Your task to perform on an android device: Go to privacy settings Image 0: 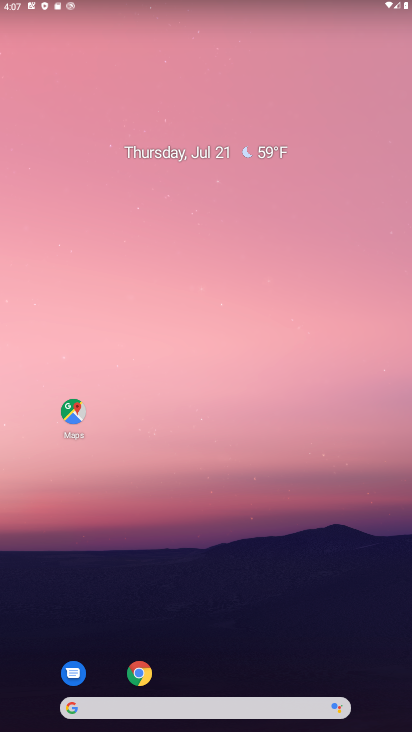
Step 0: drag from (379, 667) to (314, 194)
Your task to perform on an android device: Go to privacy settings Image 1: 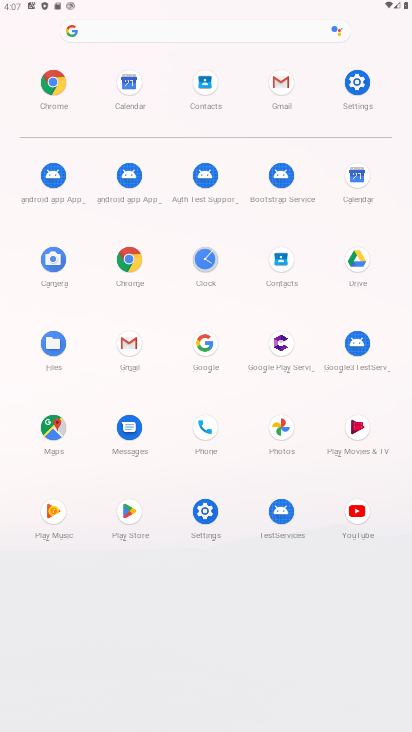
Step 1: click (205, 513)
Your task to perform on an android device: Go to privacy settings Image 2: 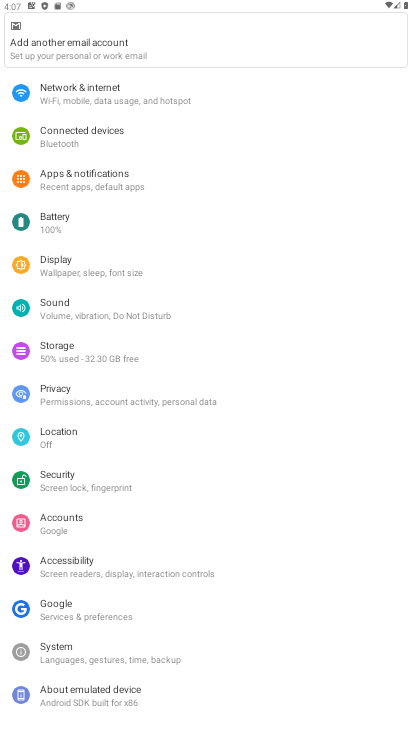
Step 2: click (67, 391)
Your task to perform on an android device: Go to privacy settings Image 3: 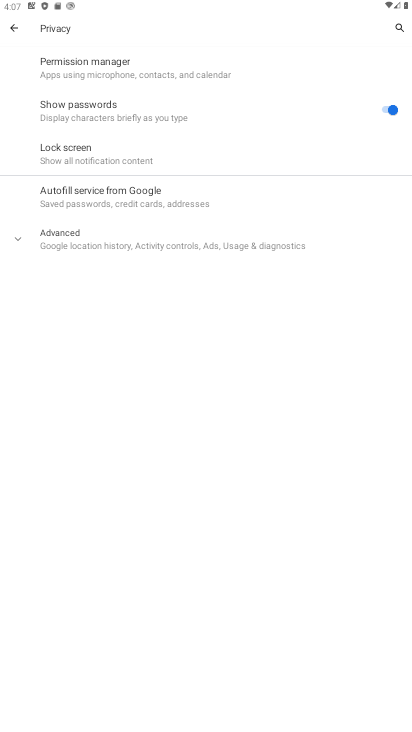
Step 3: click (16, 240)
Your task to perform on an android device: Go to privacy settings Image 4: 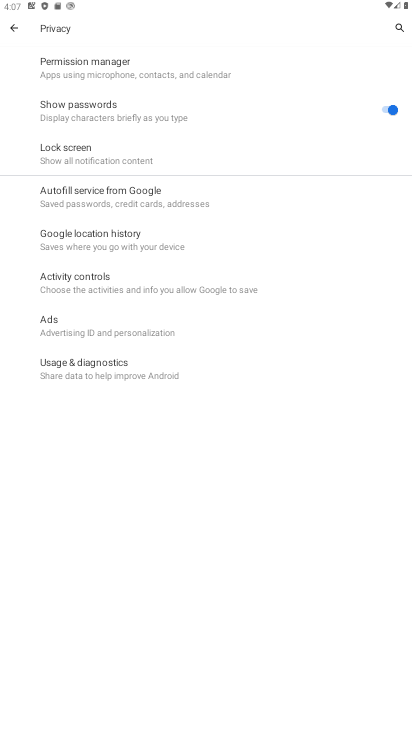
Step 4: task complete